Your task to perform on an android device: delete location history Image 0: 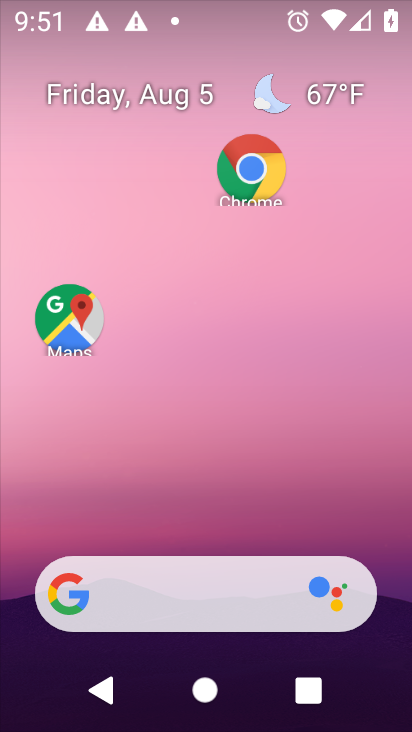
Step 0: click (84, 325)
Your task to perform on an android device: delete location history Image 1: 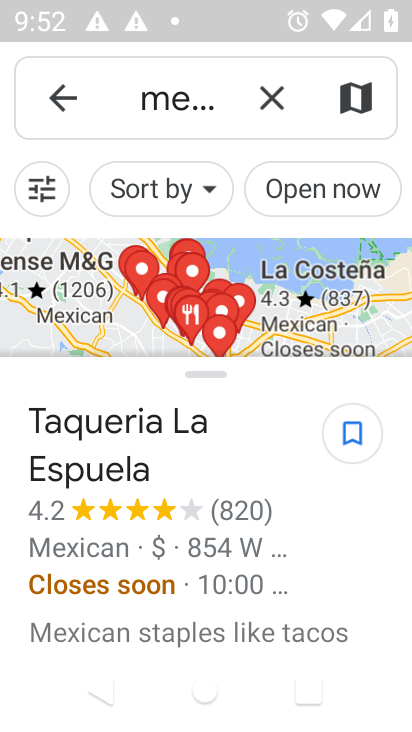
Step 1: click (63, 100)
Your task to perform on an android device: delete location history Image 2: 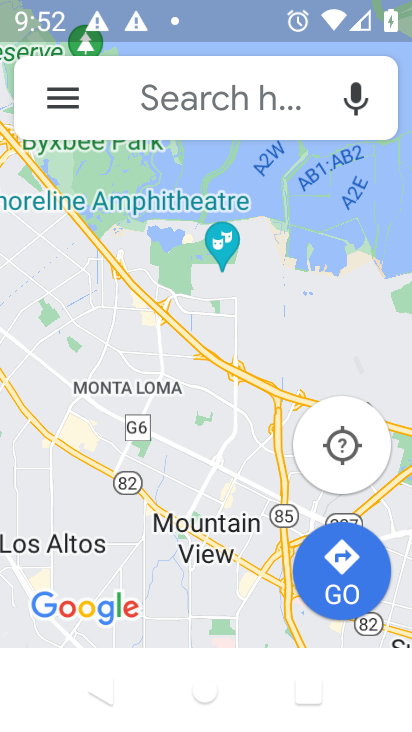
Step 2: click (77, 103)
Your task to perform on an android device: delete location history Image 3: 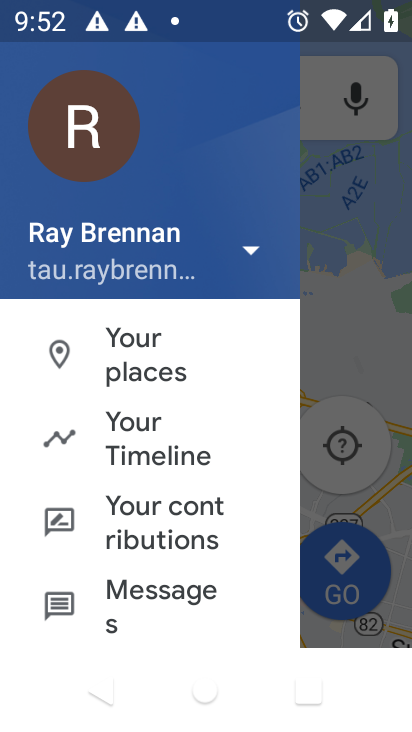
Step 3: click (143, 442)
Your task to perform on an android device: delete location history Image 4: 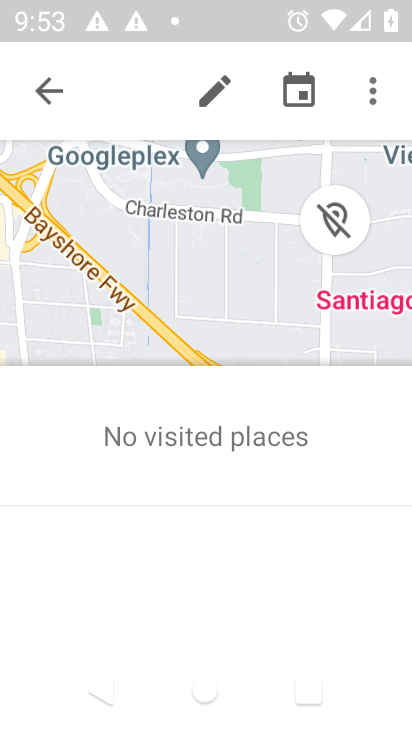
Step 4: click (377, 92)
Your task to perform on an android device: delete location history Image 5: 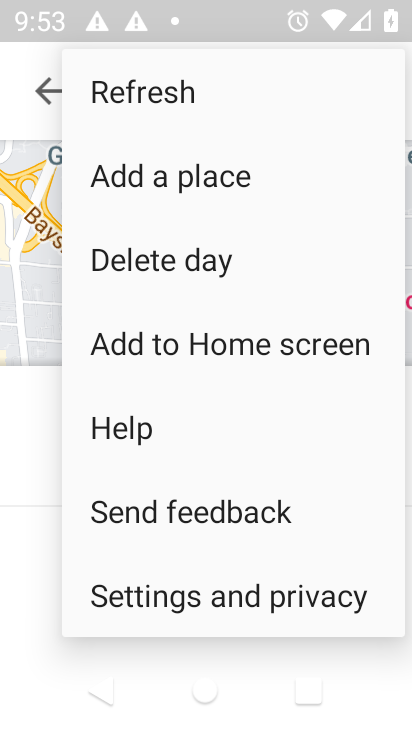
Step 5: click (182, 605)
Your task to perform on an android device: delete location history Image 6: 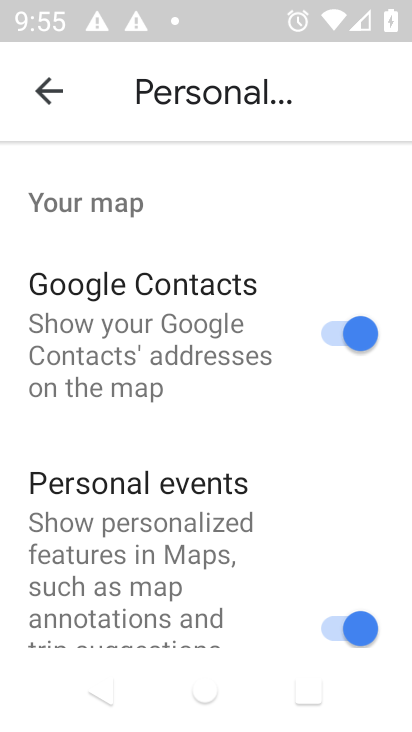
Step 6: drag from (171, 572) to (163, 244)
Your task to perform on an android device: delete location history Image 7: 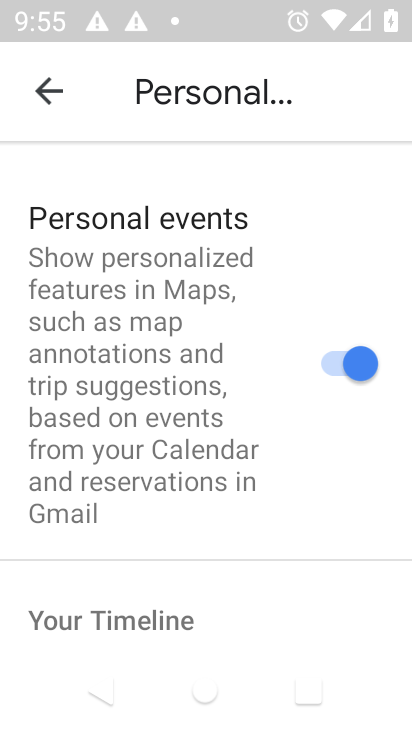
Step 7: drag from (170, 622) to (127, 185)
Your task to perform on an android device: delete location history Image 8: 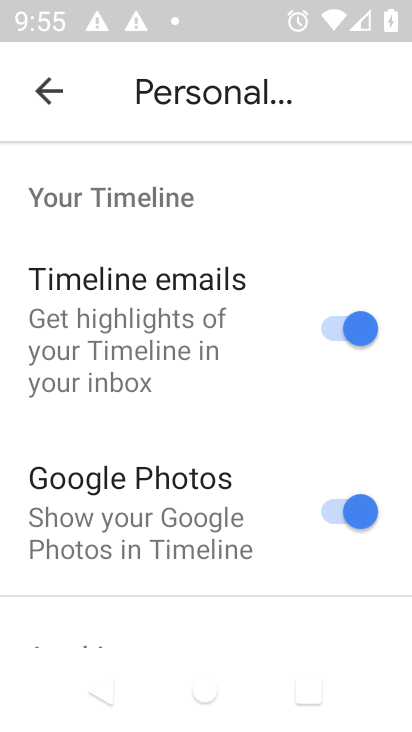
Step 8: drag from (126, 612) to (126, 245)
Your task to perform on an android device: delete location history Image 9: 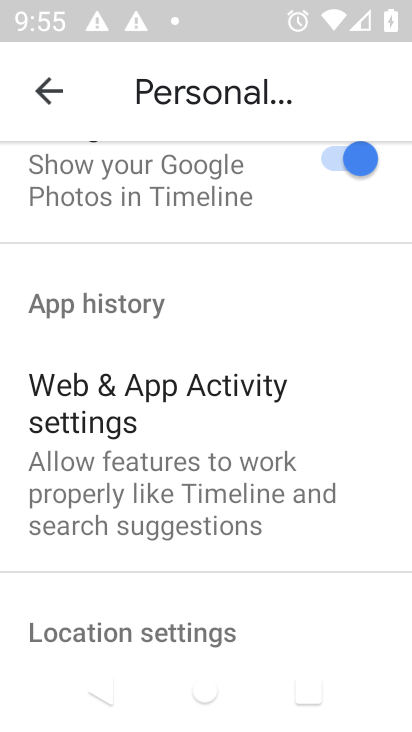
Step 9: drag from (156, 534) to (151, 150)
Your task to perform on an android device: delete location history Image 10: 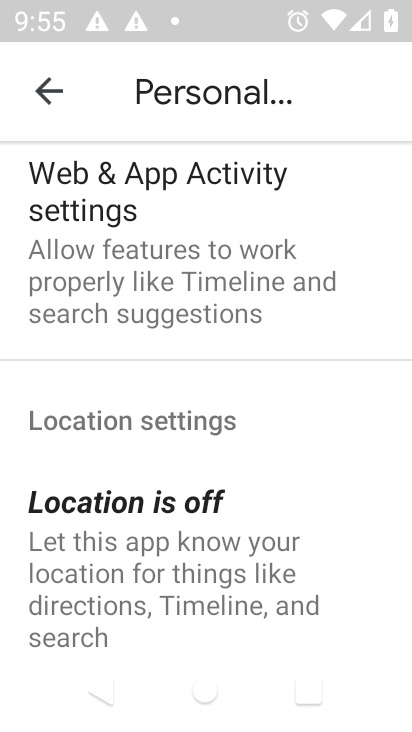
Step 10: drag from (164, 579) to (165, 236)
Your task to perform on an android device: delete location history Image 11: 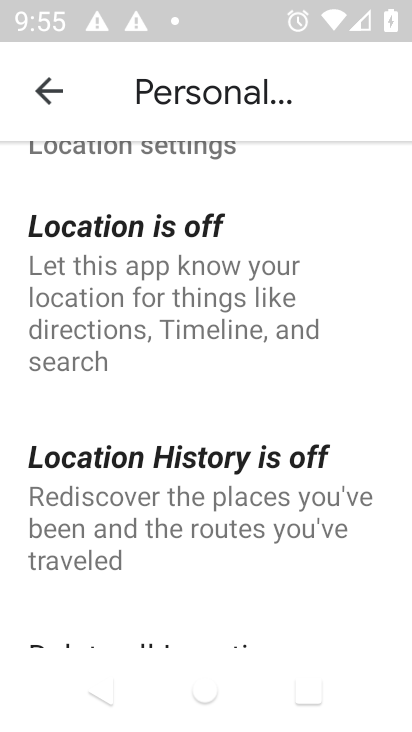
Step 11: drag from (194, 618) to (197, 238)
Your task to perform on an android device: delete location history Image 12: 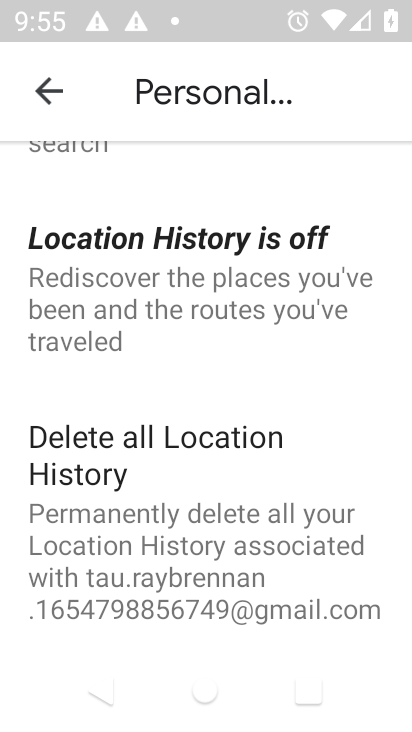
Step 12: click (197, 488)
Your task to perform on an android device: delete location history Image 13: 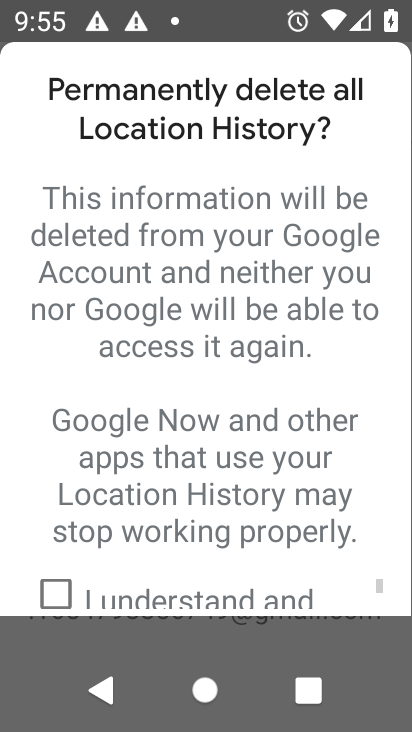
Step 13: click (61, 589)
Your task to perform on an android device: delete location history Image 14: 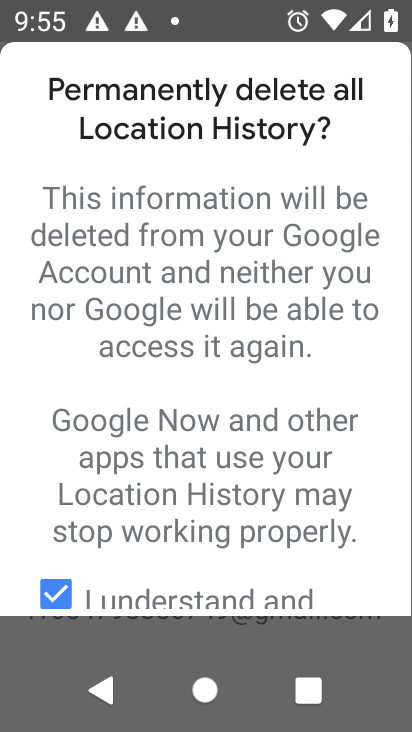
Step 14: drag from (208, 545) to (199, 119)
Your task to perform on an android device: delete location history Image 15: 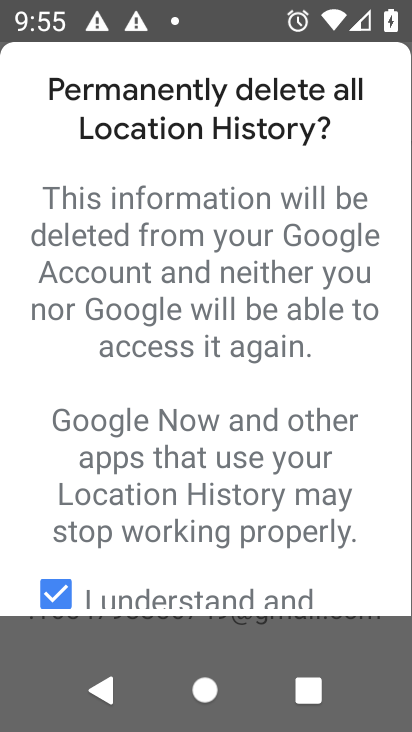
Step 15: click (229, 160)
Your task to perform on an android device: delete location history Image 16: 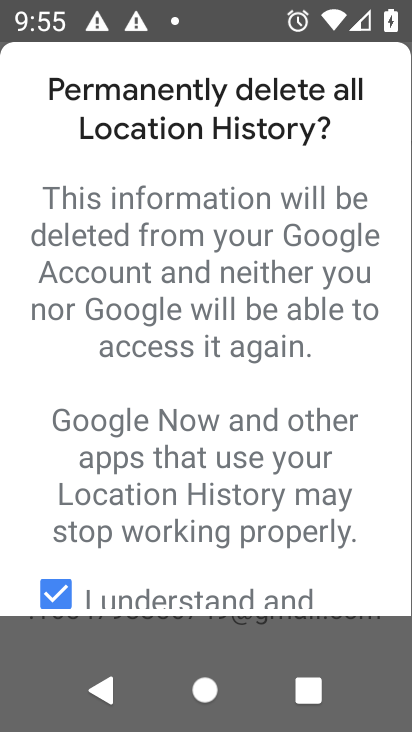
Step 16: drag from (227, 544) to (237, 124)
Your task to perform on an android device: delete location history Image 17: 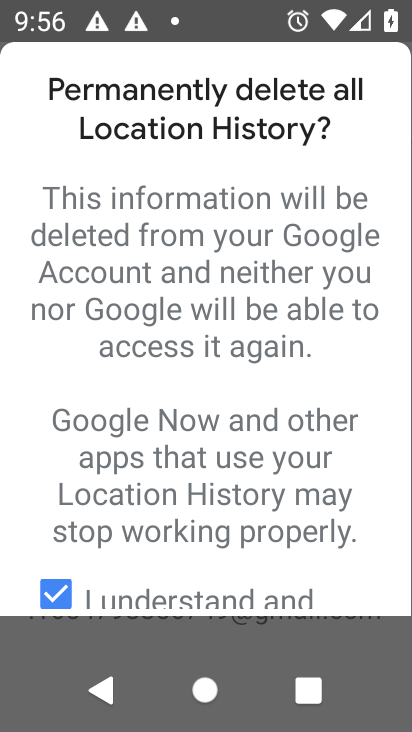
Step 17: drag from (260, 578) to (270, 166)
Your task to perform on an android device: delete location history Image 18: 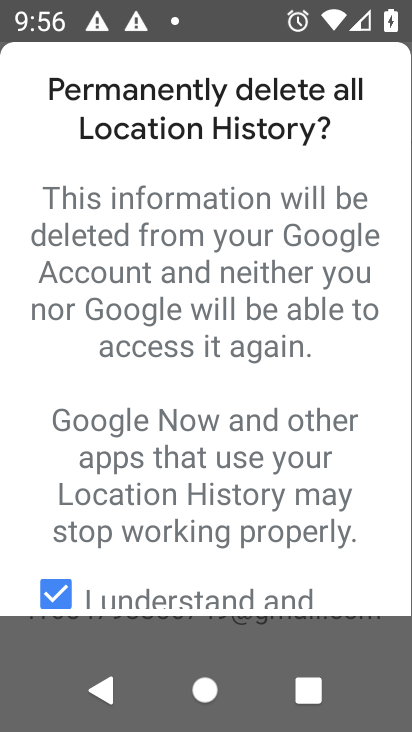
Step 18: drag from (246, 348) to (267, 219)
Your task to perform on an android device: delete location history Image 19: 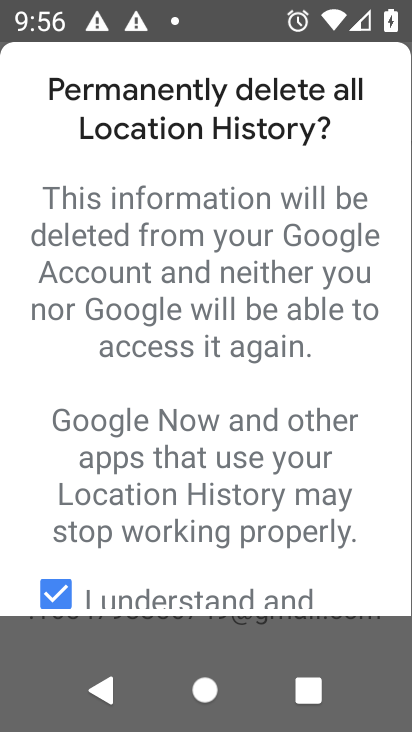
Step 19: drag from (268, 556) to (248, 147)
Your task to perform on an android device: delete location history Image 20: 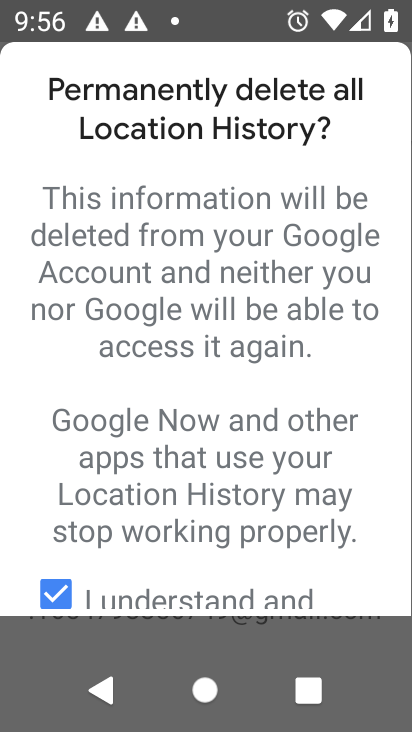
Step 20: click (322, 623)
Your task to perform on an android device: delete location history Image 21: 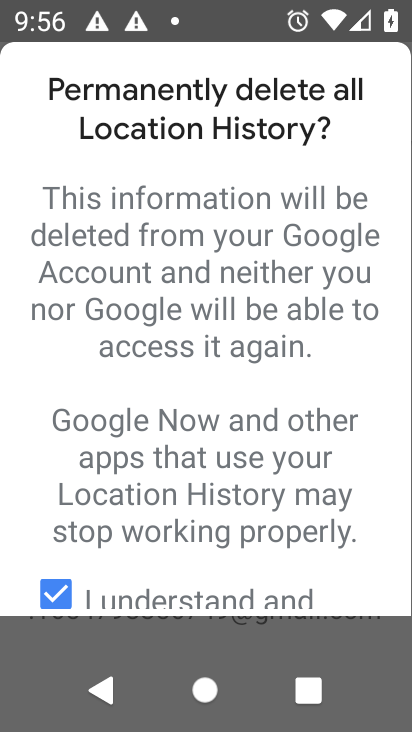
Step 21: click (253, 645)
Your task to perform on an android device: delete location history Image 22: 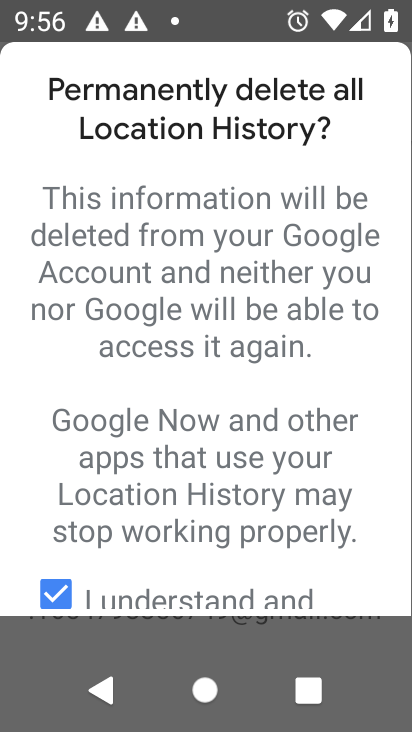
Step 22: click (247, 596)
Your task to perform on an android device: delete location history Image 23: 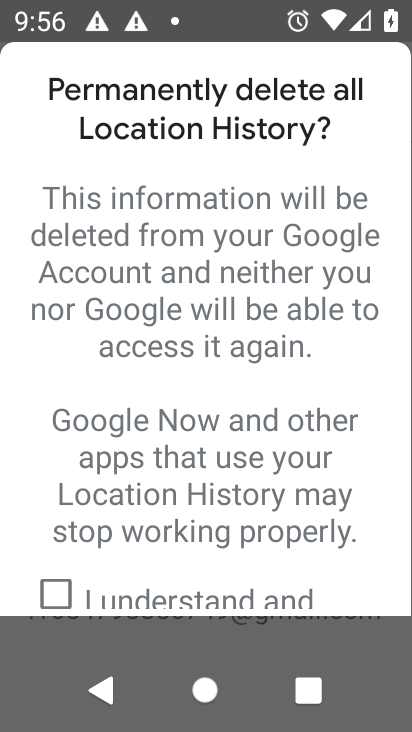
Step 23: click (251, 595)
Your task to perform on an android device: delete location history Image 24: 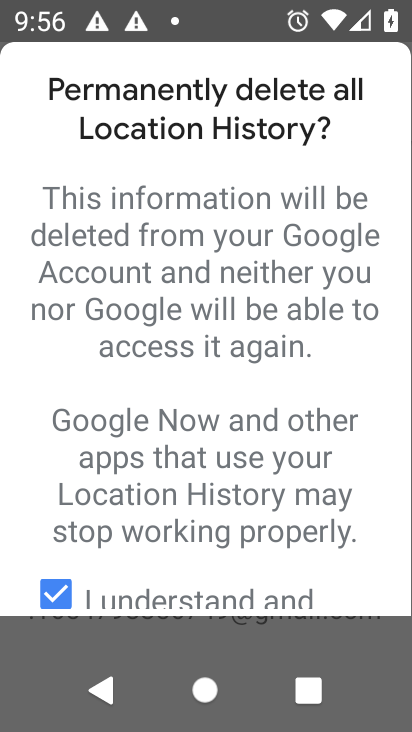
Step 24: task complete